Your task to perform on an android device: Go to internet settings Image 0: 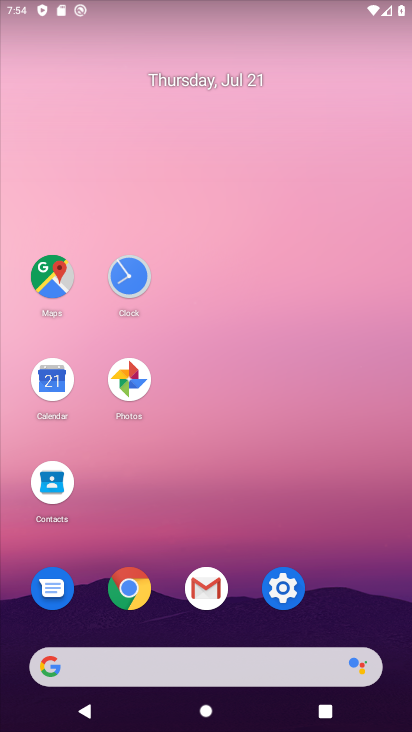
Step 0: click (286, 585)
Your task to perform on an android device: Go to internet settings Image 1: 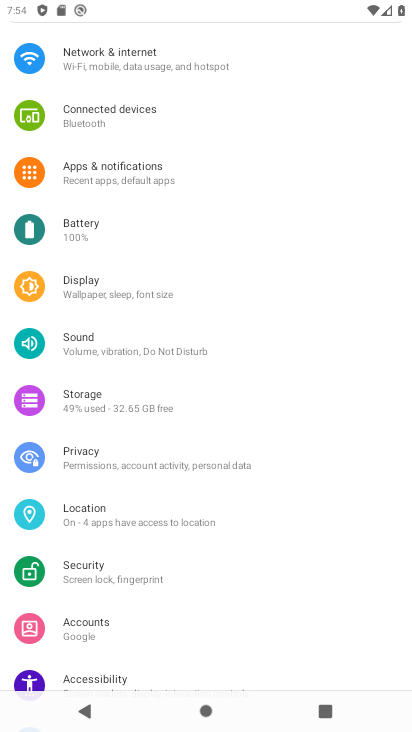
Step 1: click (109, 52)
Your task to perform on an android device: Go to internet settings Image 2: 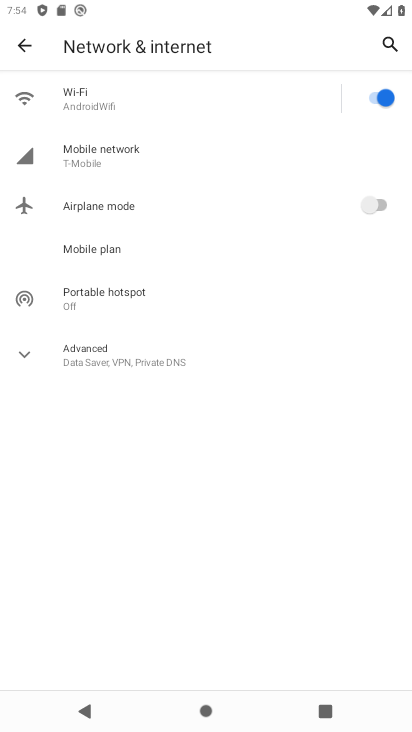
Step 2: click (110, 148)
Your task to perform on an android device: Go to internet settings Image 3: 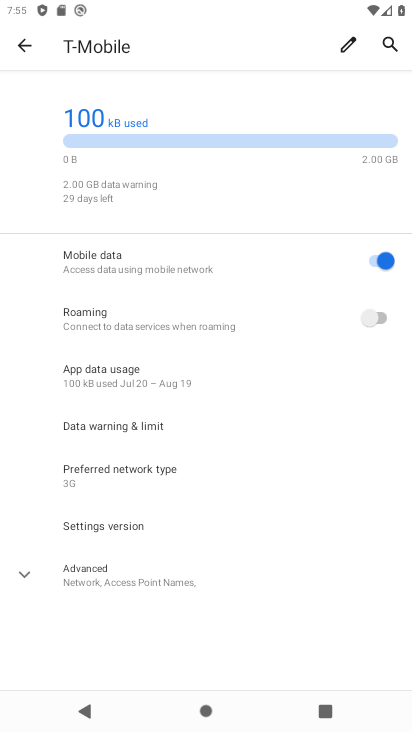
Step 3: task complete